Your task to perform on an android device: Open ESPN.com Image 0: 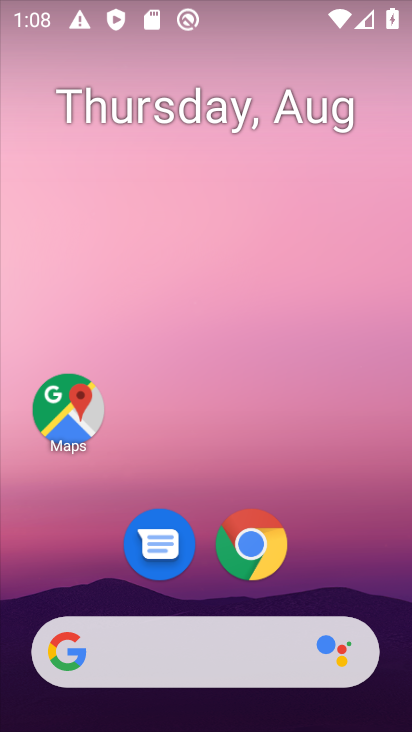
Step 0: drag from (256, 608) to (197, 112)
Your task to perform on an android device: Open ESPN.com Image 1: 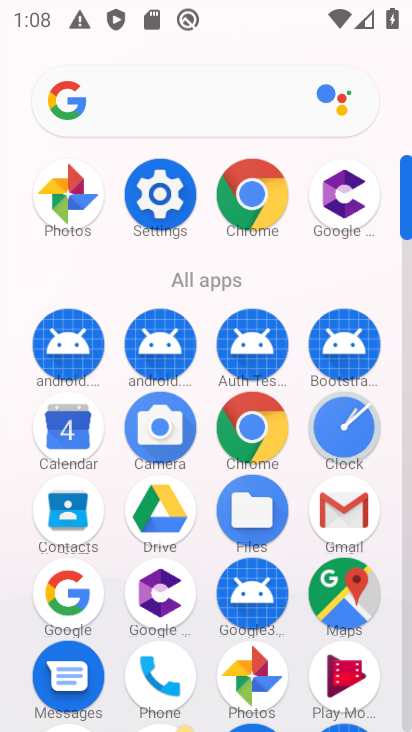
Step 1: click (245, 226)
Your task to perform on an android device: Open ESPN.com Image 2: 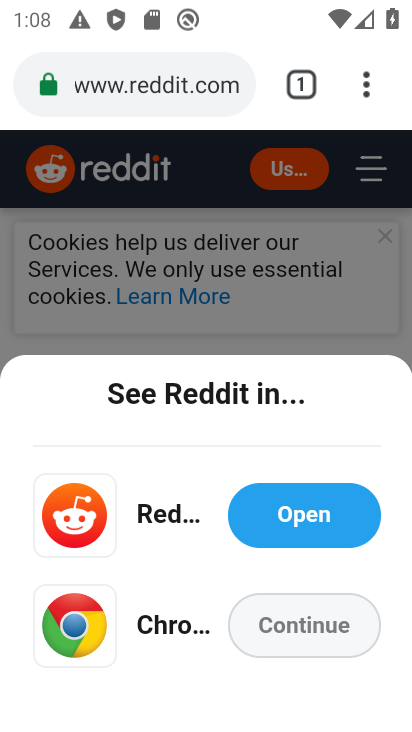
Step 2: click (313, 78)
Your task to perform on an android device: Open ESPN.com Image 3: 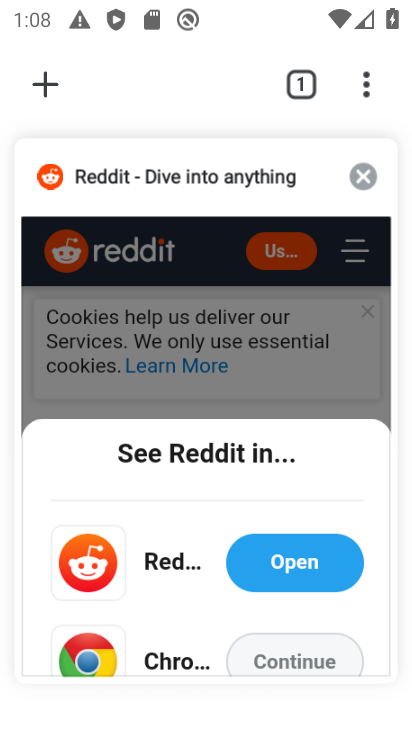
Step 3: click (24, 86)
Your task to perform on an android device: Open ESPN.com Image 4: 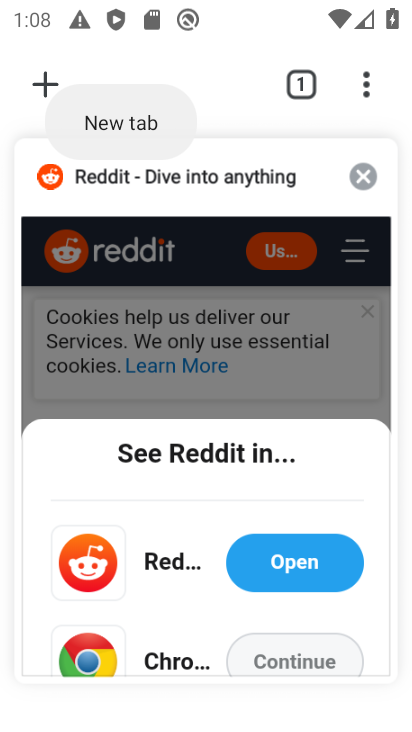
Step 4: click (35, 97)
Your task to perform on an android device: Open ESPN.com Image 5: 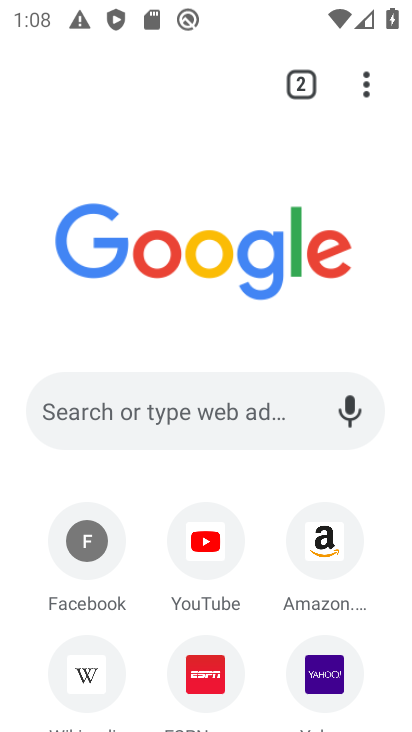
Step 5: click (198, 680)
Your task to perform on an android device: Open ESPN.com Image 6: 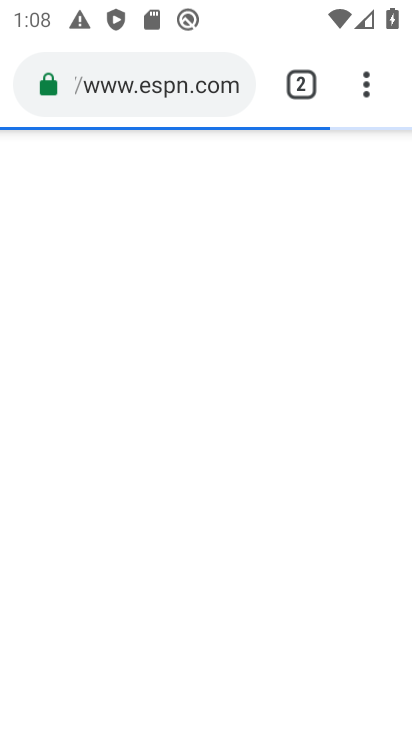
Step 6: task complete